Your task to perform on an android device: Open the calendar app, open the side menu, and click the "Day" option Image 0: 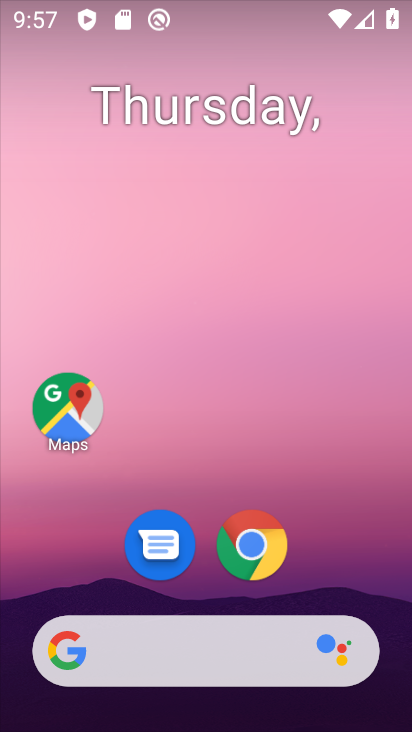
Step 0: drag from (332, 562) to (277, 114)
Your task to perform on an android device: Open the calendar app, open the side menu, and click the "Day" option Image 1: 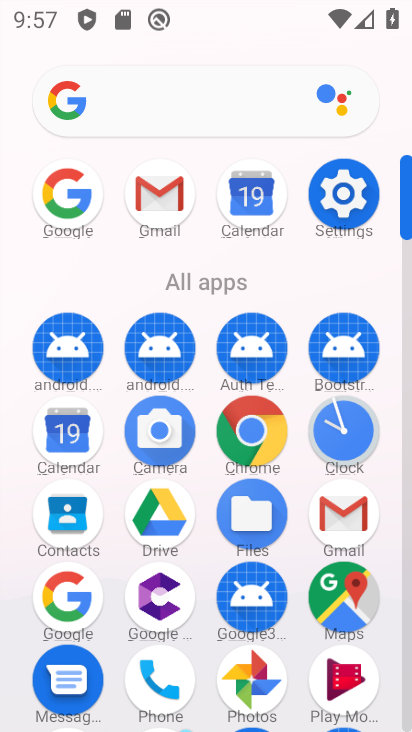
Step 1: click (68, 437)
Your task to perform on an android device: Open the calendar app, open the side menu, and click the "Day" option Image 2: 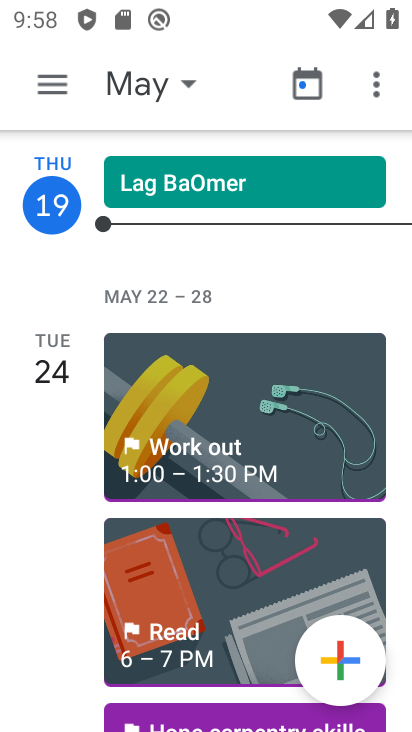
Step 2: click (58, 73)
Your task to perform on an android device: Open the calendar app, open the side menu, and click the "Day" option Image 3: 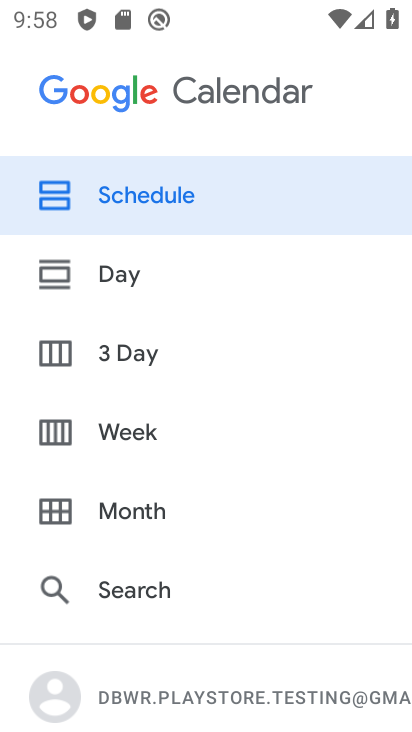
Step 3: click (118, 282)
Your task to perform on an android device: Open the calendar app, open the side menu, and click the "Day" option Image 4: 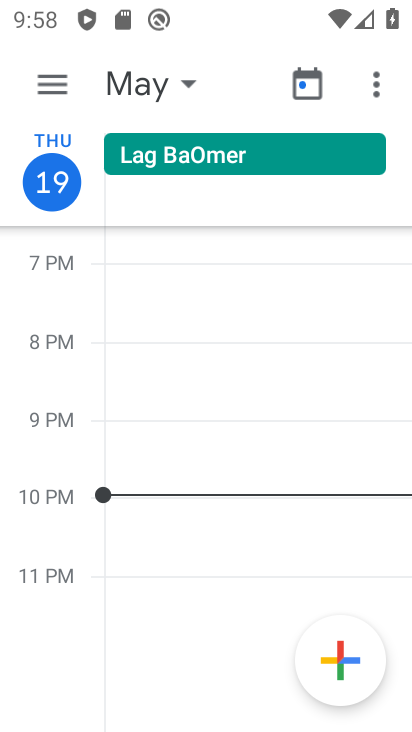
Step 4: task complete